Your task to perform on an android device: delete the emails in spam in the gmail app Image 0: 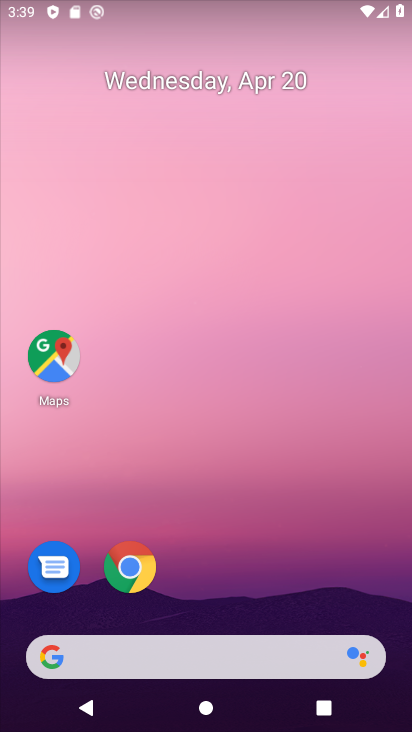
Step 0: drag from (234, 284) to (187, 154)
Your task to perform on an android device: delete the emails in spam in the gmail app Image 1: 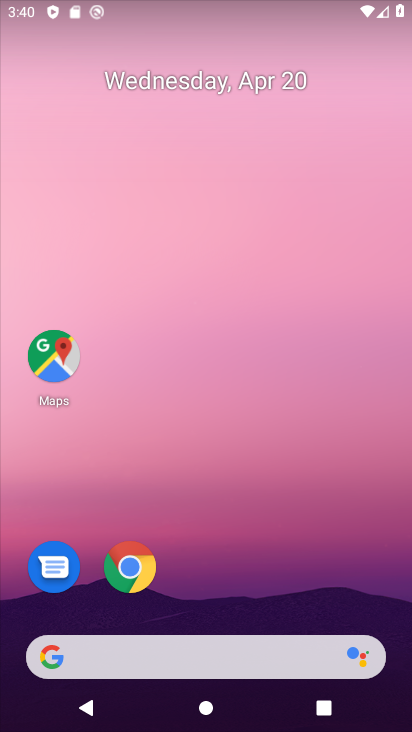
Step 1: drag from (302, 615) to (259, 152)
Your task to perform on an android device: delete the emails in spam in the gmail app Image 2: 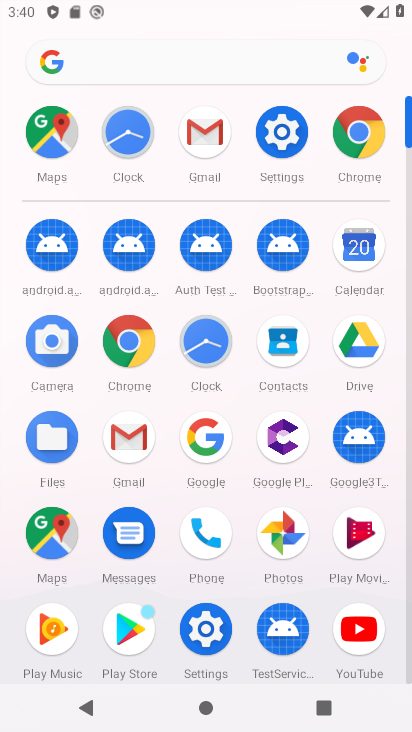
Step 2: click (221, 151)
Your task to perform on an android device: delete the emails in spam in the gmail app Image 3: 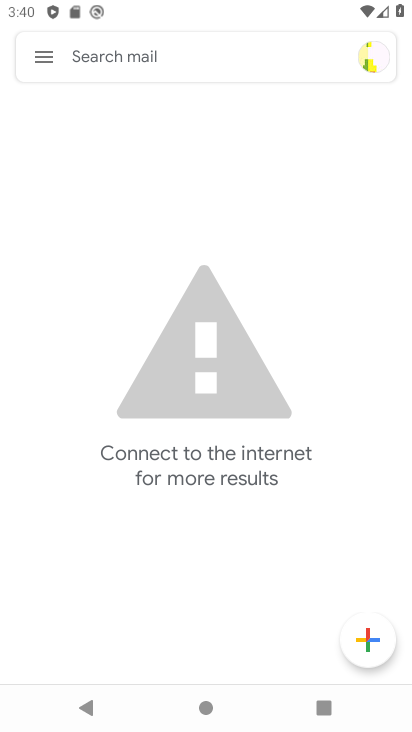
Step 3: click (39, 49)
Your task to perform on an android device: delete the emails in spam in the gmail app Image 4: 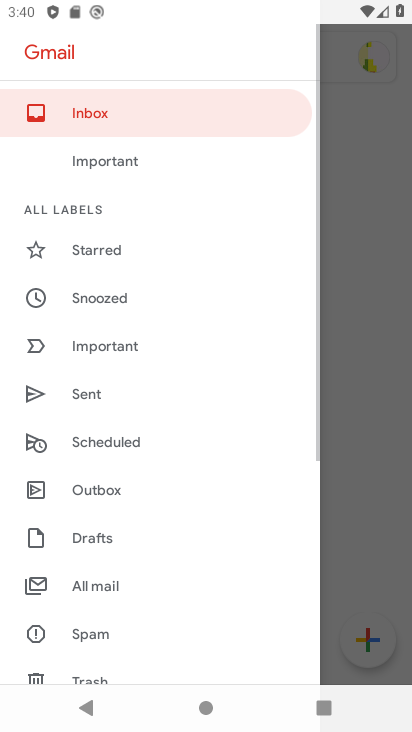
Step 4: click (112, 644)
Your task to perform on an android device: delete the emails in spam in the gmail app Image 5: 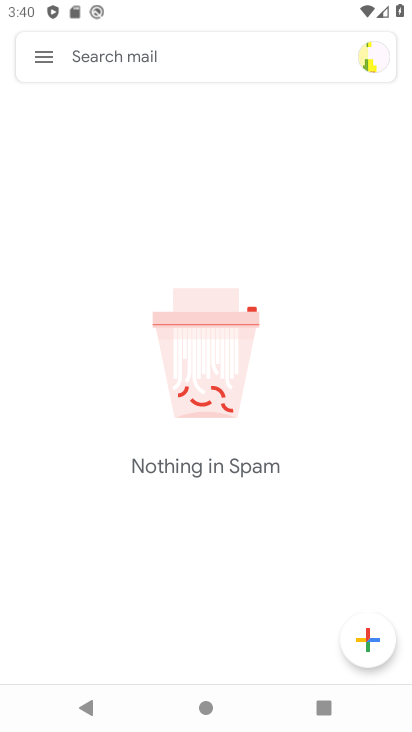
Step 5: task complete